Your task to perform on an android device: Open Google Image 0: 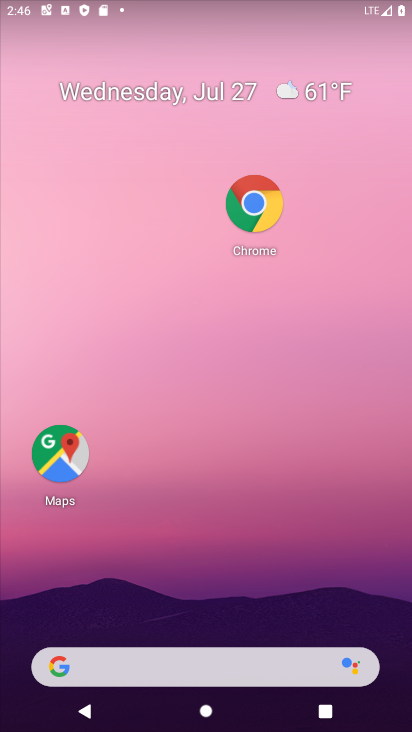
Step 0: drag from (207, 617) to (223, 198)
Your task to perform on an android device: Open Google Image 1: 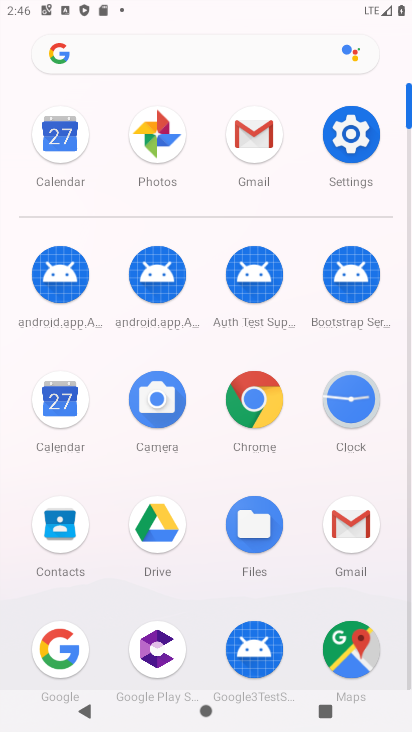
Step 1: click (76, 653)
Your task to perform on an android device: Open Google Image 2: 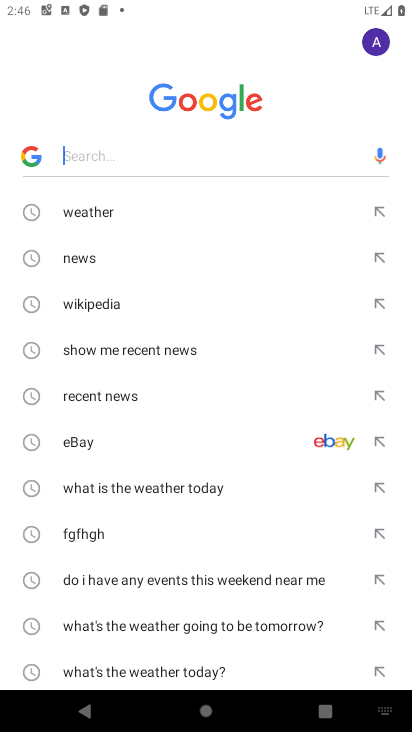
Step 2: task complete